Your task to perform on an android device: create a new album in the google photos Image 0: 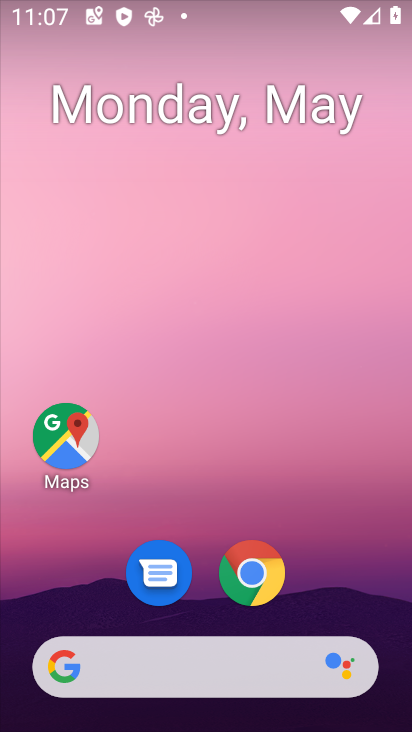
Step 0: drag from (357, 560) to (306, 24)
Your task to perform on an android device: create a new album in the google photos Image 1: 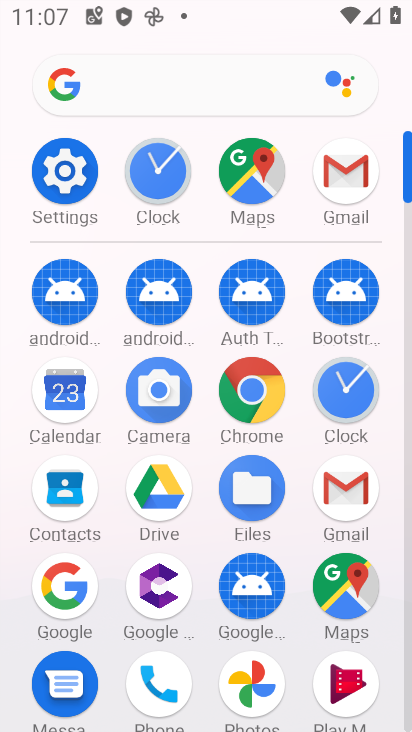
Step 1: click (273, 662)
Your task to perform on an android device: create a new album in the google photos Image 2: 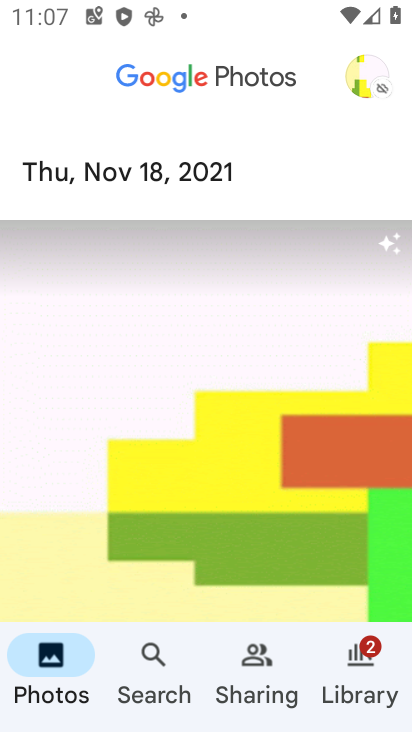
Step 2: click (354, 677)
Your task to perform on an android device: create a new album in the google photos Image 3: 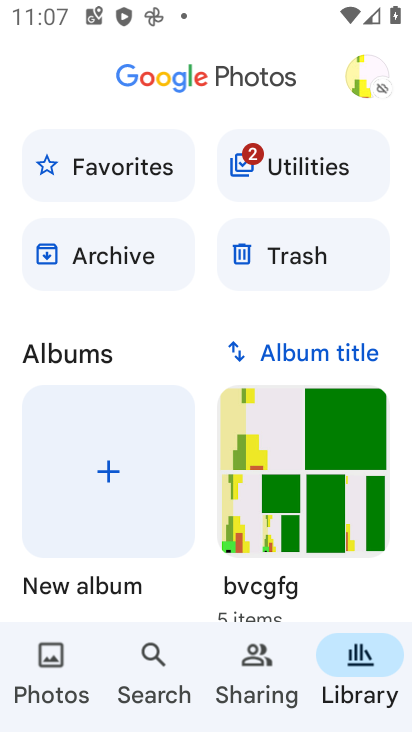
Step 3: click (119, 519)
Your task to perform on an android device: create a new album in the google photos Image 4: 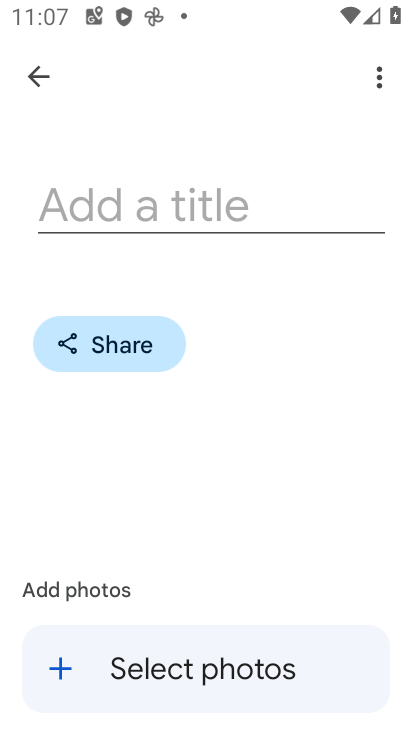
Step 4: click (234, 207)
Your task to perform on an android device: create a new album in the google photos Image 5: 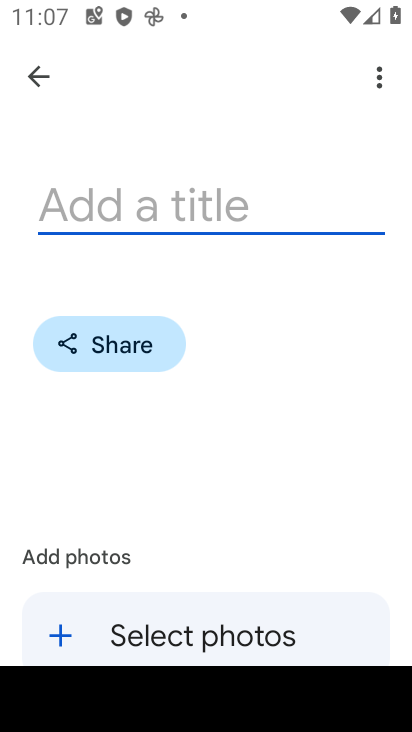
Step 5: type ",mkvkcjj"
Your task to perform on an android device: create a new album in the google photos Image 6: 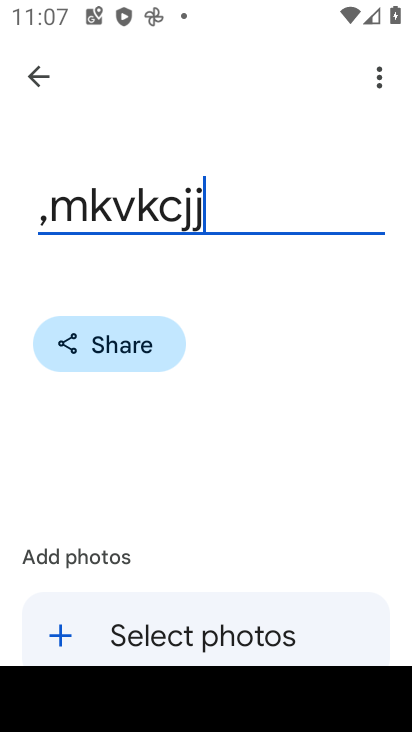
Step 6: click (150, 600)
Your task to perform on an android device: create a new album in the google photos Image 7: 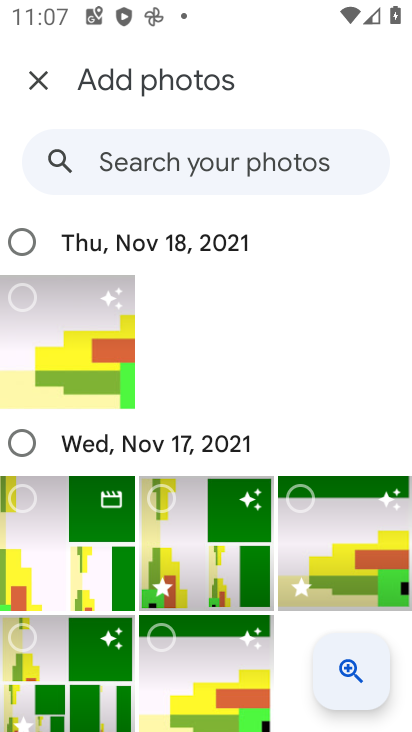
Step 7: click (21, 246)
Your task to perform on an android device: create a new album in the google photos Image 8: 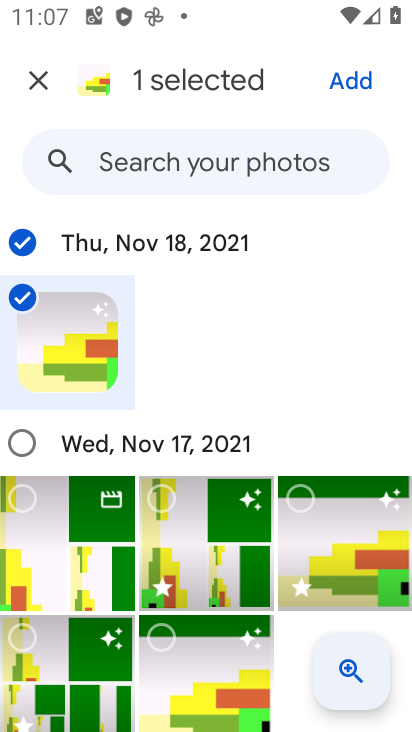
Step 8: click (23, 448)
Your task to perform on an android device: create a new album in the google photos Image 9: 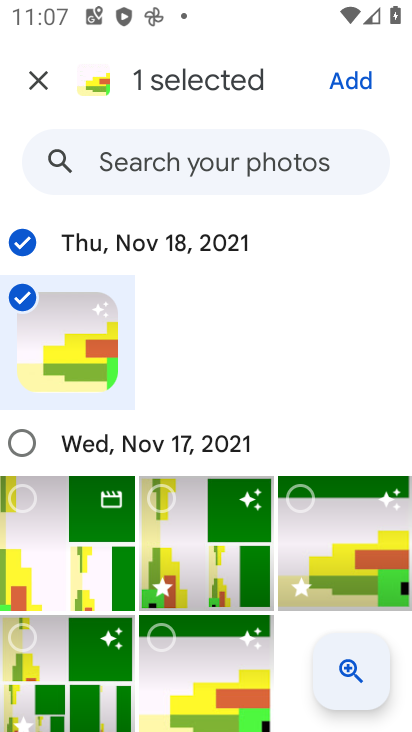
Step 9: click (345, 84)
Your task to perform on an android device: create a new album in the google photos Image 10: 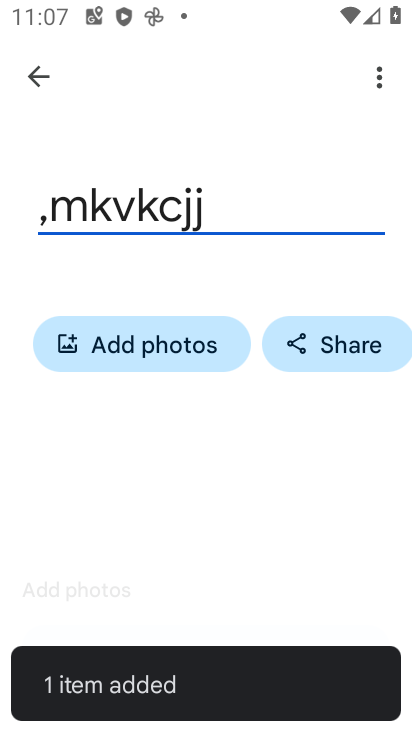
Step 10: task complete